Your task to perform on an android device: Go to Wikipedia Image 0: 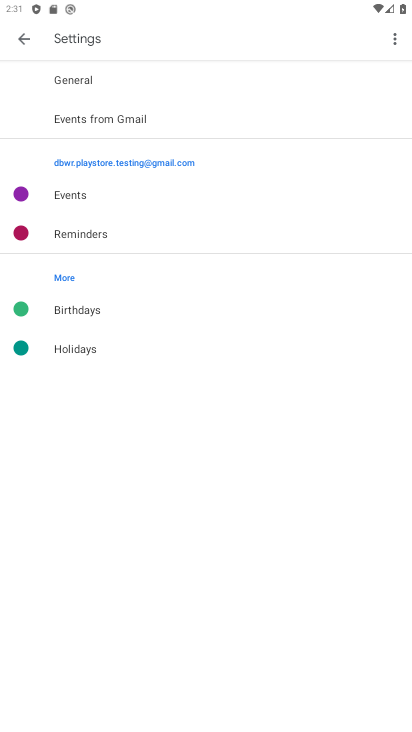
Step 0: press home button
Your task to perform on an android device: Go to Wikipedia Image 1: 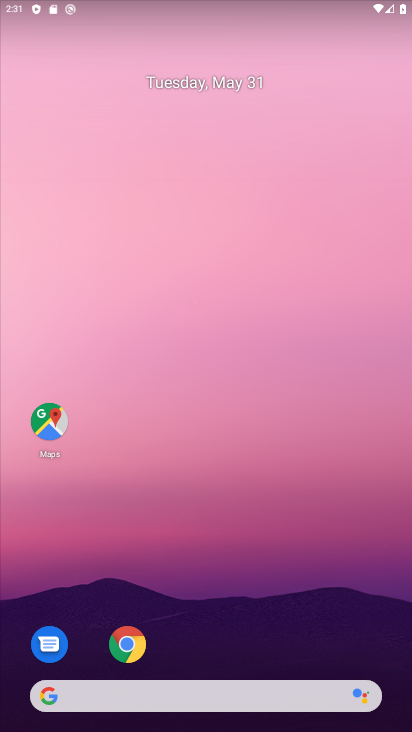
Step 1: click (137, 697)
Your task to perform on an android device: Go to Wikipedia Image 2: 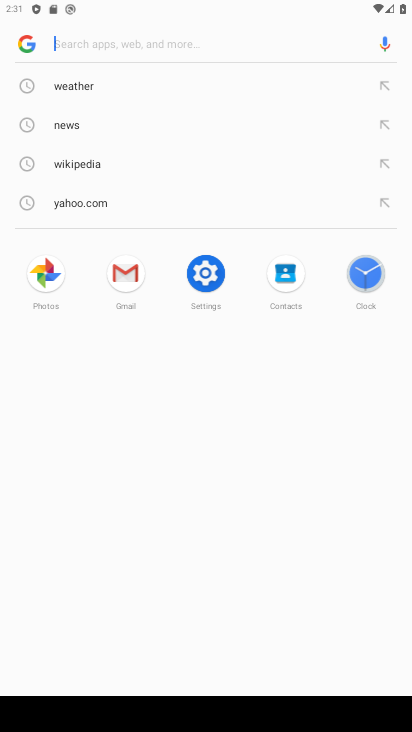
Step 2: click (82, 165)
Your task to perform on an android device: Go to Wikipedia Image 3: 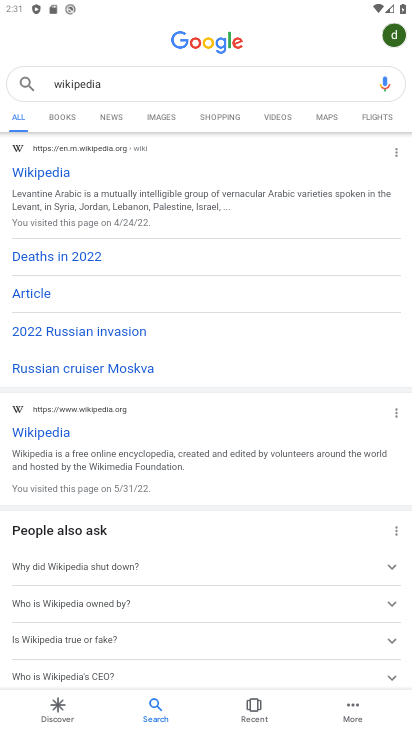
Step 3: click (35, 171)
Your task to perform on an android device: Go to Wikipedia Image 4: 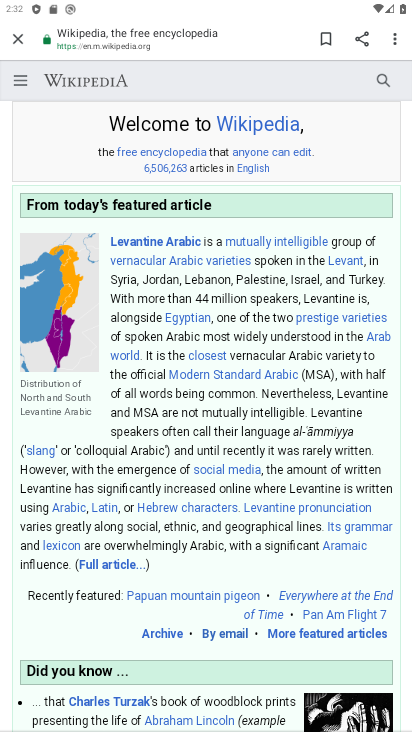
Step 4: task complete